Your task to perform on an android device: Open Google Maps and go to "Timeline" Image 0: 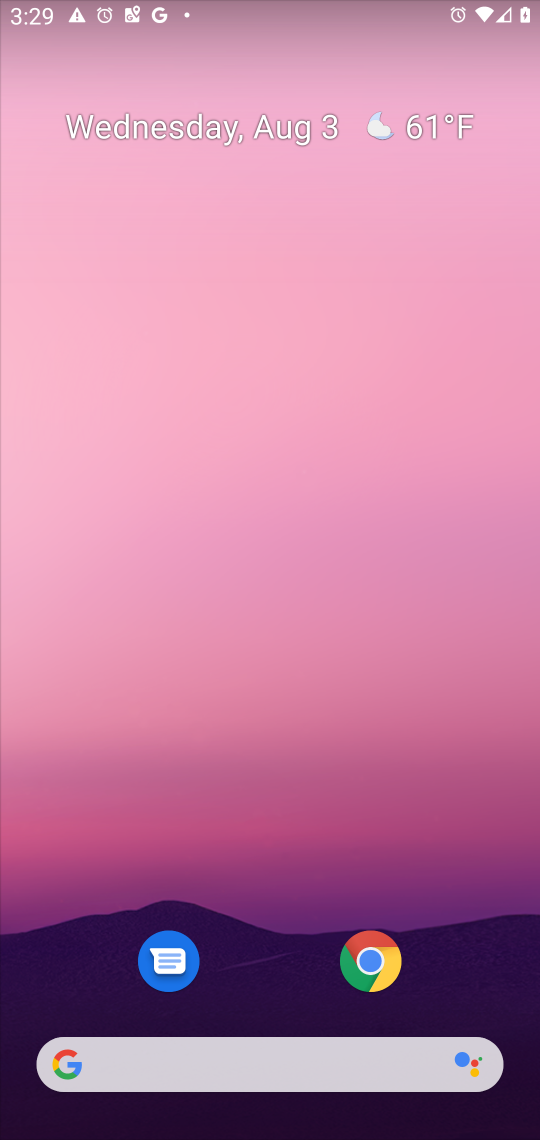
Step 0: drag from (304, 760) to (352, 61)
Your task to perform on an android device: Open Google Maps and go to "Timeline" Image 1: 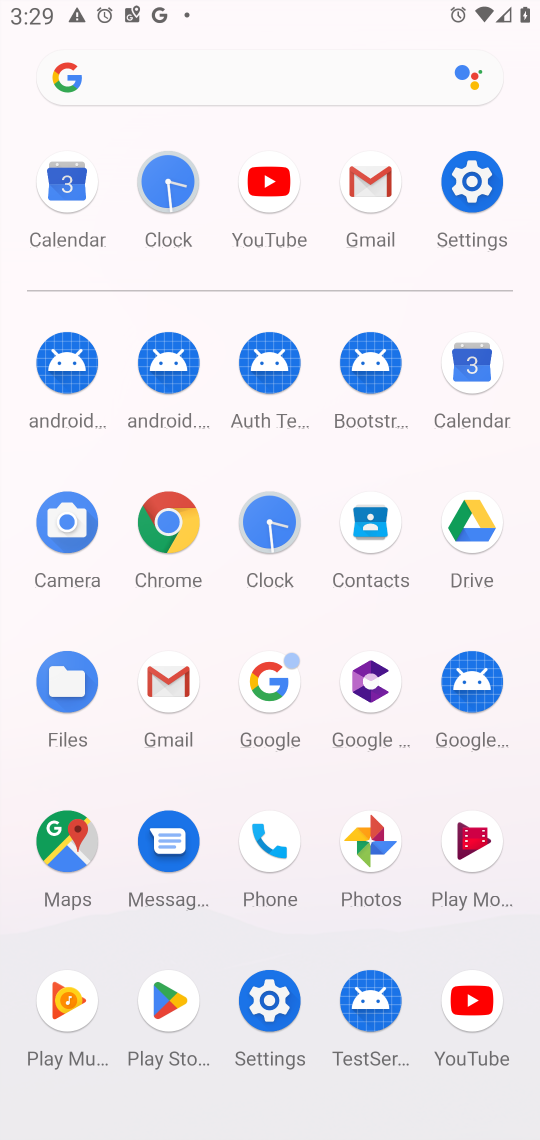
Step 1: click (73, 844)
Your task to perform on an android device: Open Google Maps and go to "Timeline" Image 2: 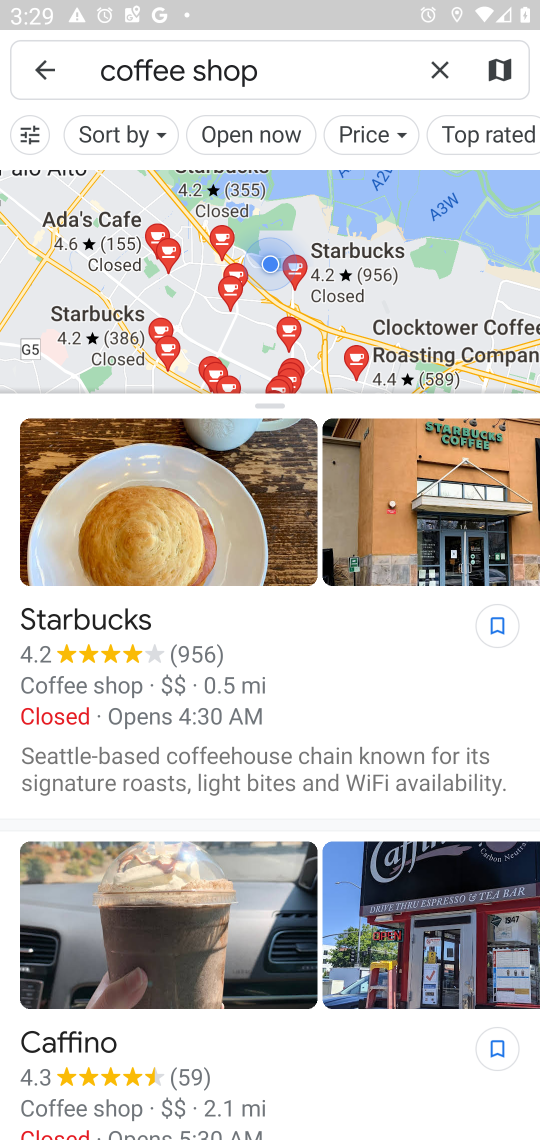
Step 2: click (435, 70)
Your task to perform on an android device: Open Google Maps and go to "Timeline" Image 3: 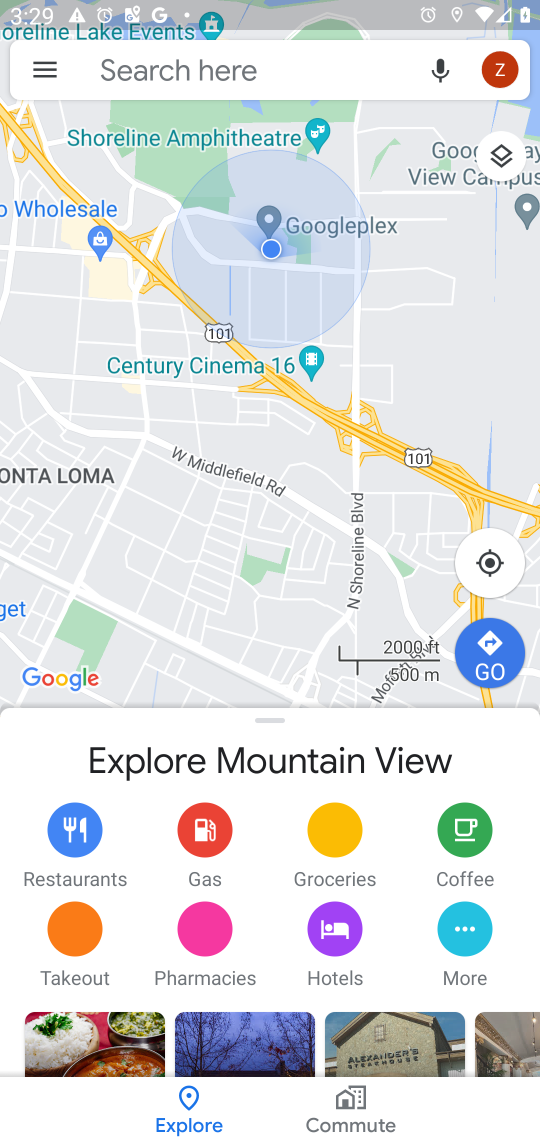
Step 3: click (46, 72)
Your task to perform on an android device: Open Google Maps and go to "Timeline" Image 4: 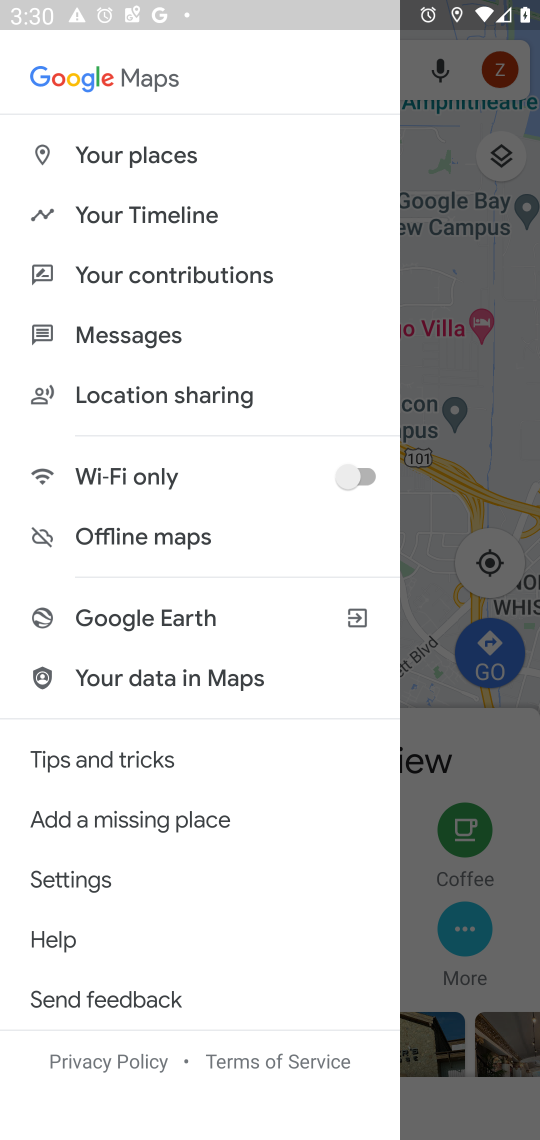
Step 4: click (86, 209)
Your task to perform on an android device: Open Google Maps and go to "Timeline" Image 5: 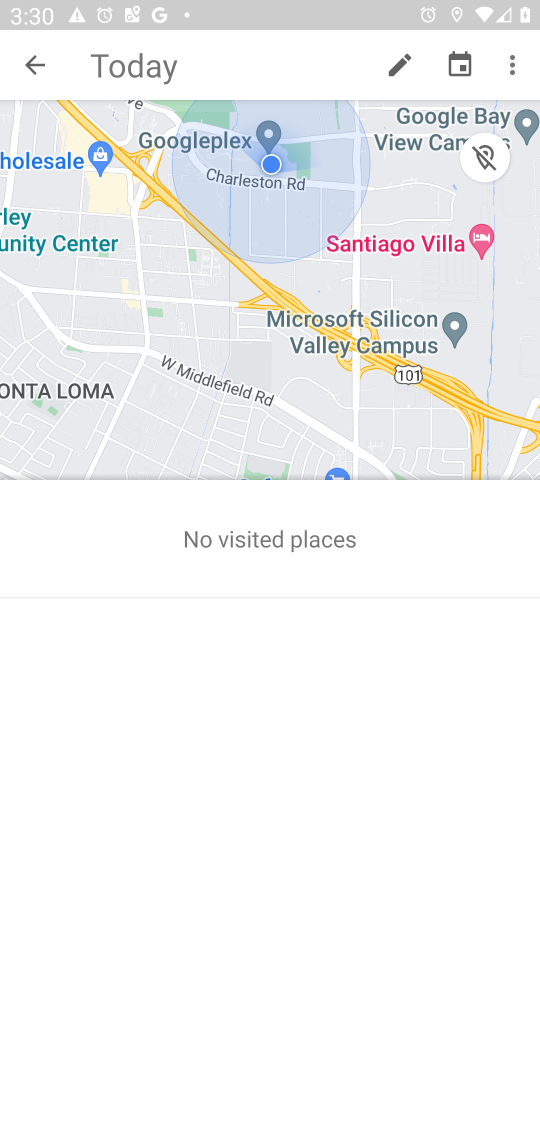
Step 5: task complete